Your task to perform on an android device: Go to Wikipedia Image 0: 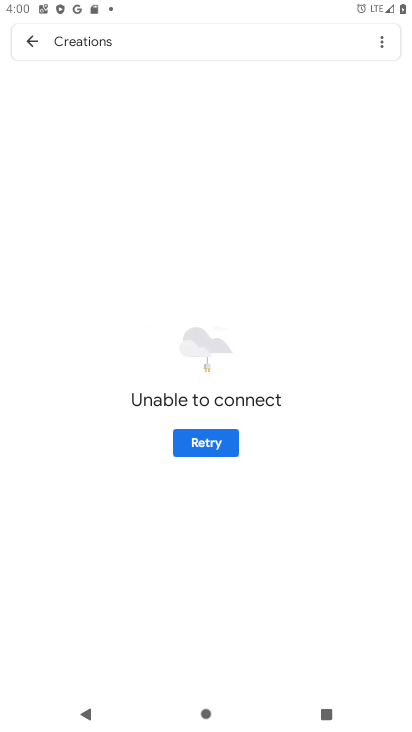
Step 0: press home button
Your task to perform on an android device: Go to Wikipedia Image 1: 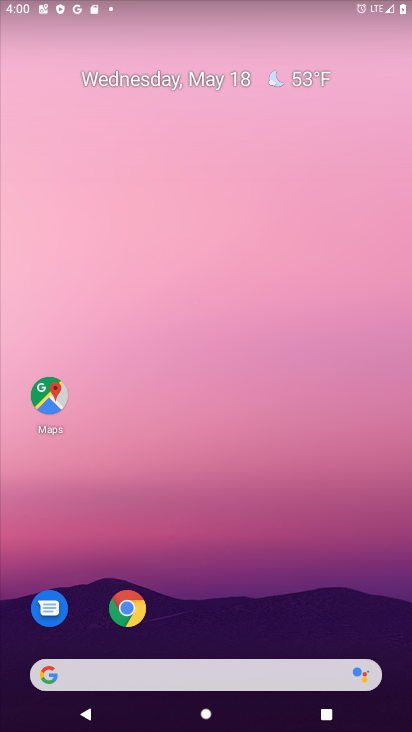
Step 1: click (120, 607)
Your task to perform on an android device: Go to Wikipedia Image 2: 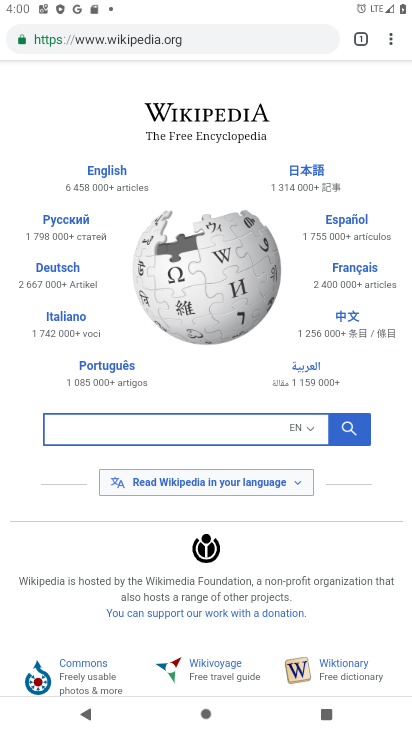
Step 2: task complete